Your task to perform on an android device: What's the weather? Image 0: 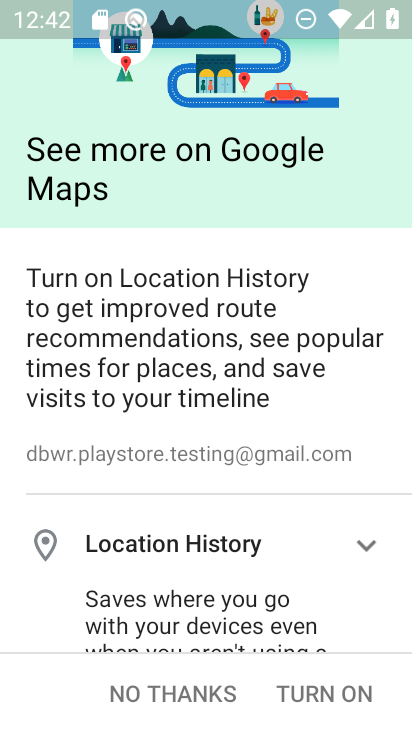
Step 0: press home button
Your task to perform on an android device: What's the weather? Image 1: 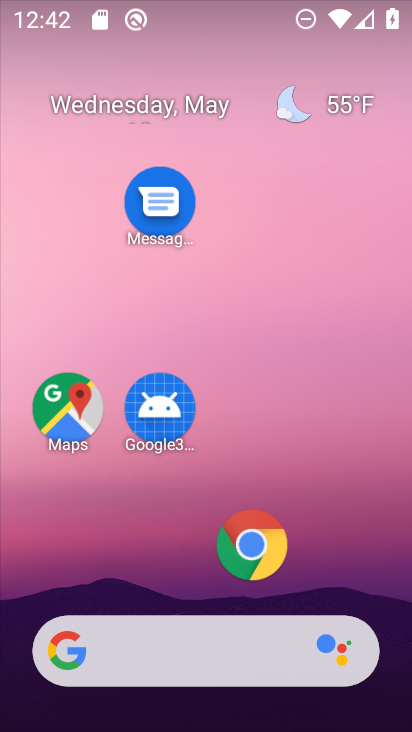
Step 1: click (347, 100)
Your task to perform on an android device: What's the weather? Image 2: 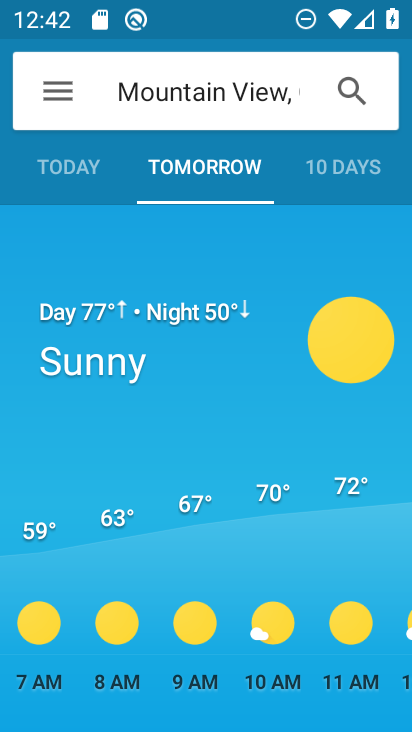
Step 2: drag from (138, 437) to (162, 362)
Your task to perform on an android device: What's the weather? Image 3: 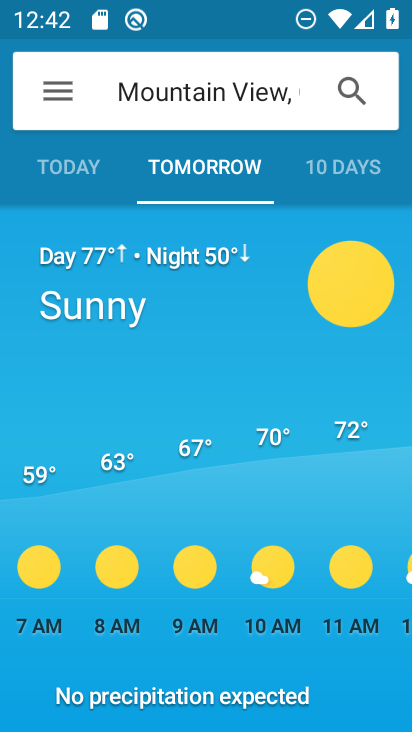
Step 3: click (106, 179)
Your task to perform on an android device: What's the weather? Image 4: 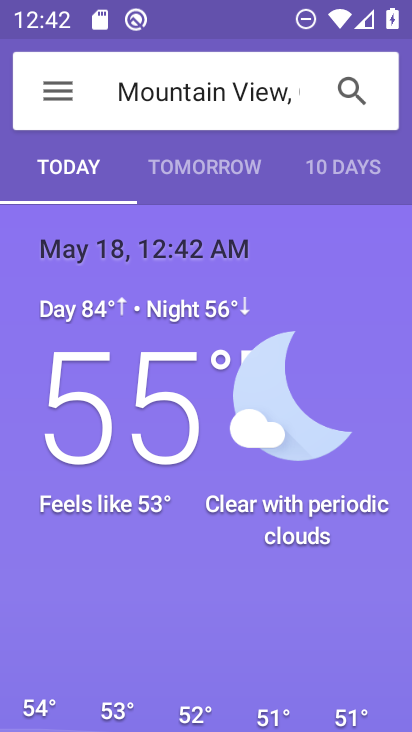
Step 4: task complete